Your task to perform on an android device: Go to notification settings Image 0: 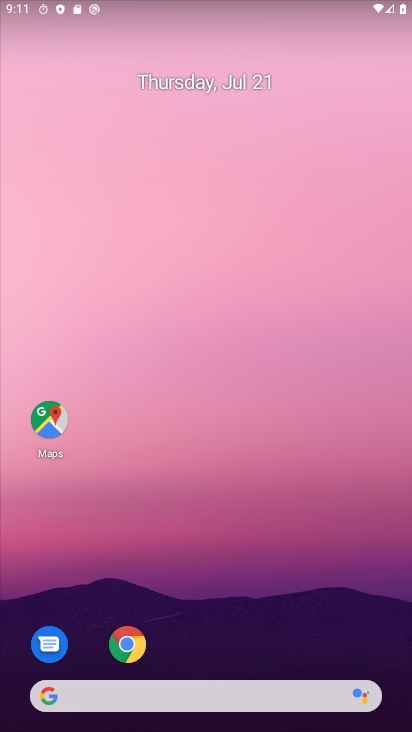
Step 0: drag from (260, 663) to (192, 290)
Your task to perform on an android device: Go to notification settings Image 1: 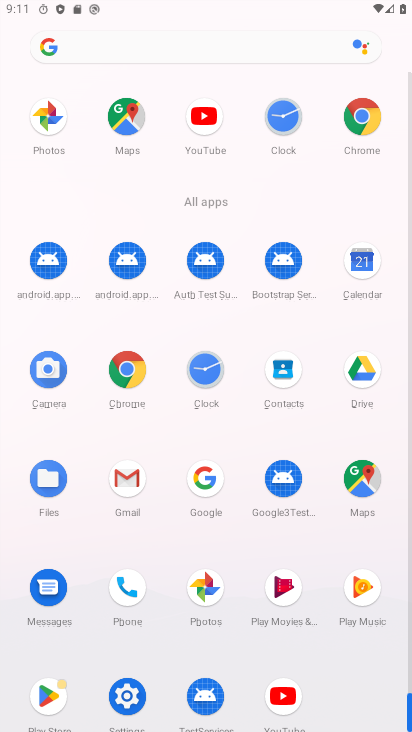
Step 1: click (134, 686)
Your task to perform on an android device: Go to notification settings Image 2: 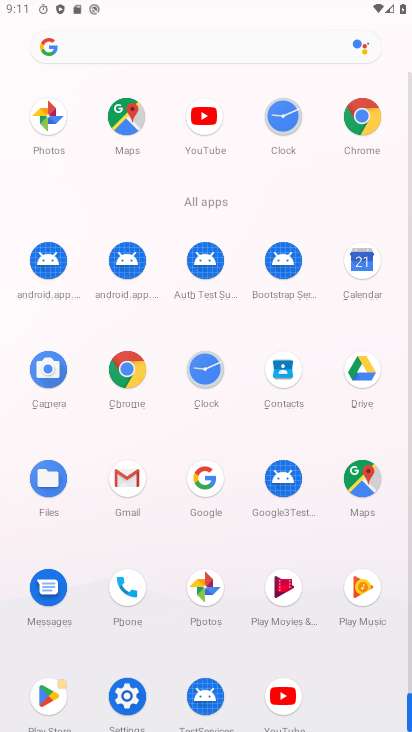
Step 2: click (134, 686)
Your task to perform on an android device: Go to notification settings Image 3: 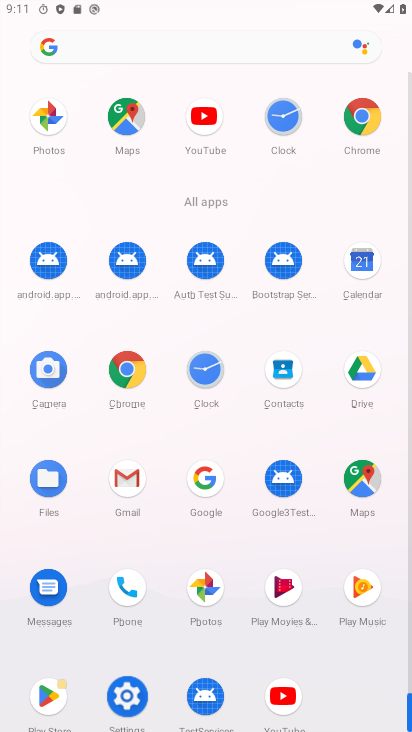
Step 3: click (134, 686)
Your task to perform on an android device: Go to notification settings Image 4: 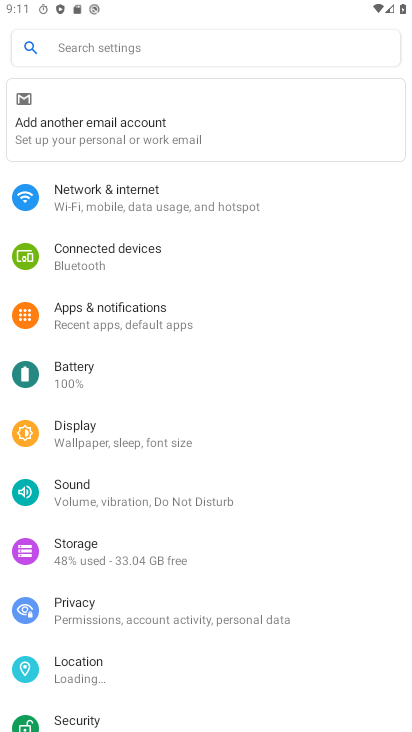
Step 4: click (101, 316)
Your task to perform on an android device: Go to notification settings Image 5: 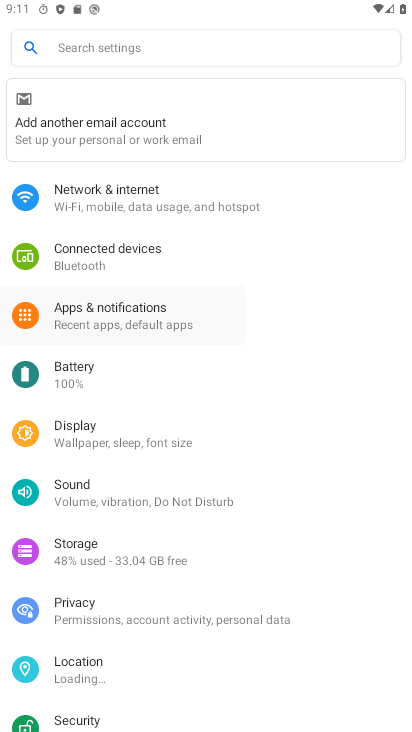
Step 5: click (106, 310)
Your task to perform on an android device: Go to notification settings Image 6: 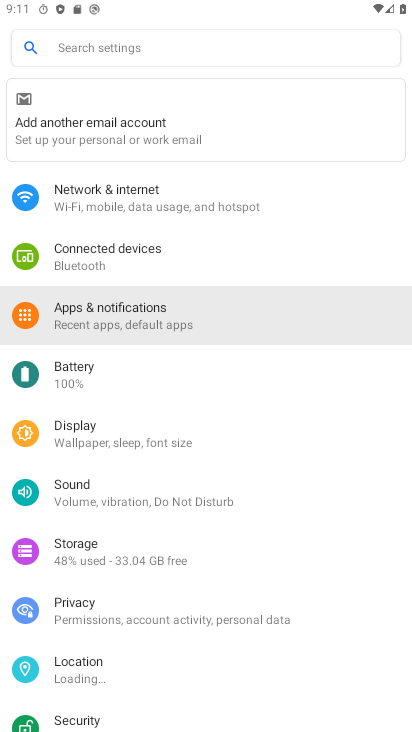
Step 6: click (118, 299)
Your task to perform on an android device: Go to notification settings Image 7: 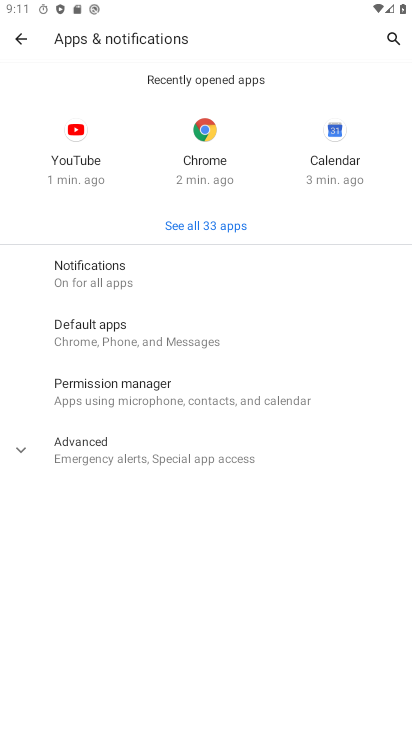
Step 7: click (101, 273)
Your task to perform on an android device: Go to notification settings Image 8: 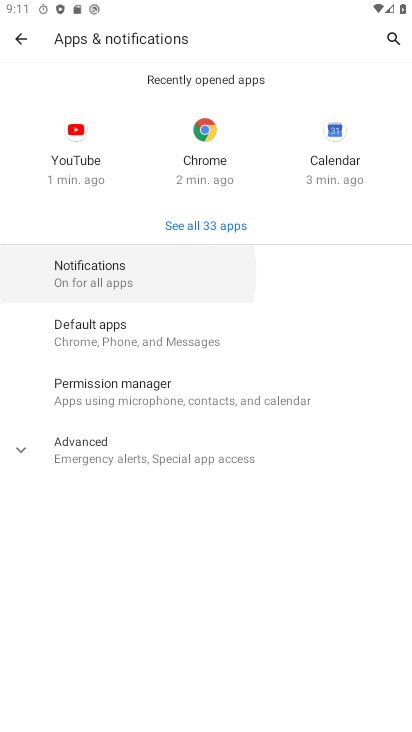
Step 8: click (101, 273)
Your task to perform on an android device: Go to notification settings Image 9: 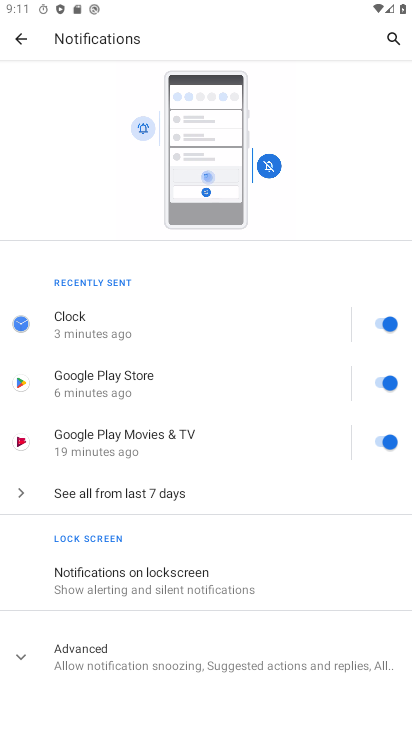
Step 9: task complete